Your task to perform on an android device: toggle improve location accuracy Image 0: 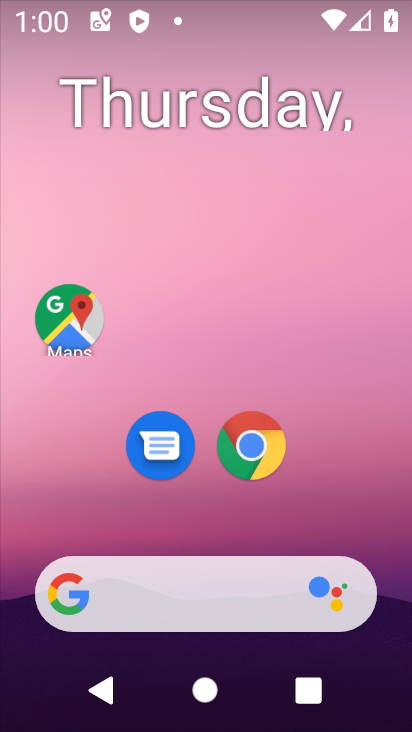
Step 0: drag from (171, 553) to (324, 4)
Your task to perform on an android device: toggle improve location accuracy Image 1: 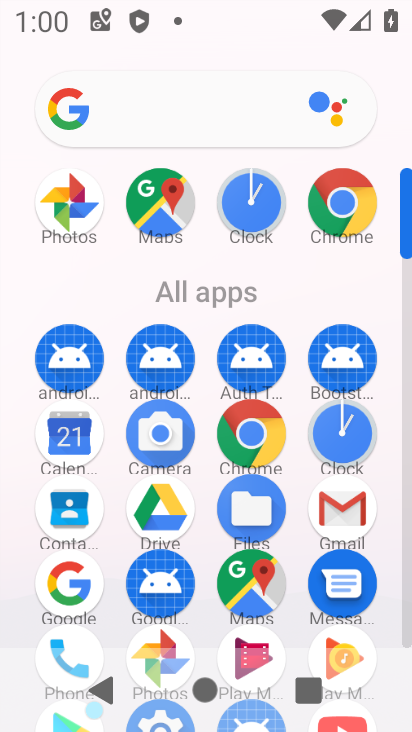
Step 1: drag from (180, 686) to (293, 239)
Your task to perform on an android device: toggle improve location accuracy Image 2: 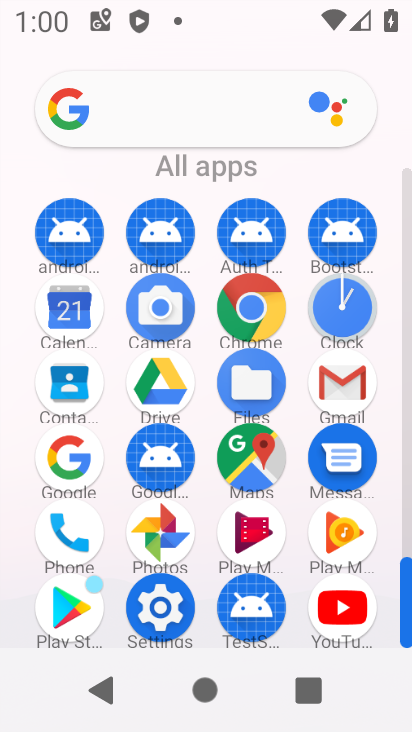
Step 2: click (162, 629)
Your task to perform on an android device: toggle improve location accuracy Image 3: 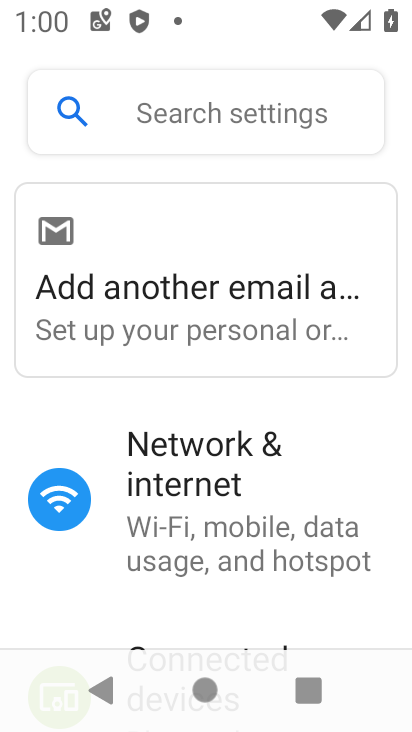
Step 3: drag from (206, 566) to (365, 30)
Your task to perform on an android device: toggle improve location accuracy Image 4: 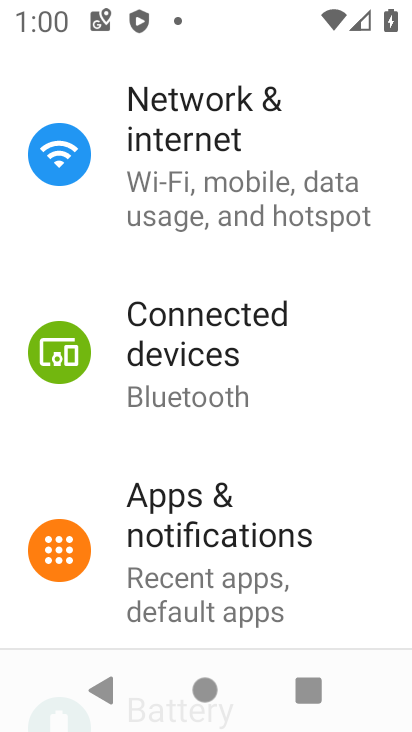
Step 4: drag from (247, 510) to (365, 100)
Your task to perform on an android device: toggle improve location accuracy Image 5: 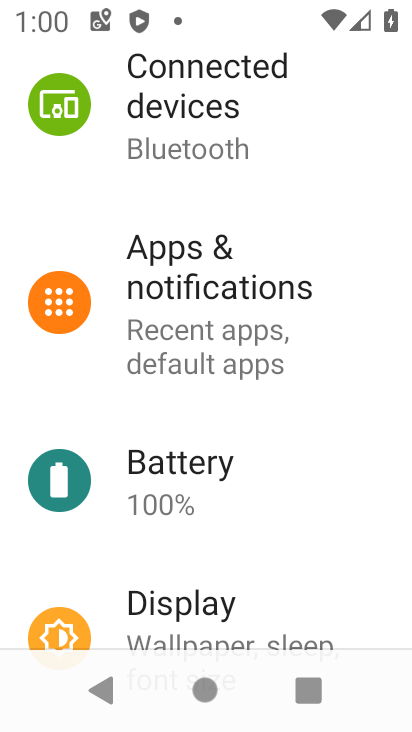
Step 5: drag from (207, 622) to (408, 135)
Your task to perform on an android device: toggle improve location accuracy Image 6: 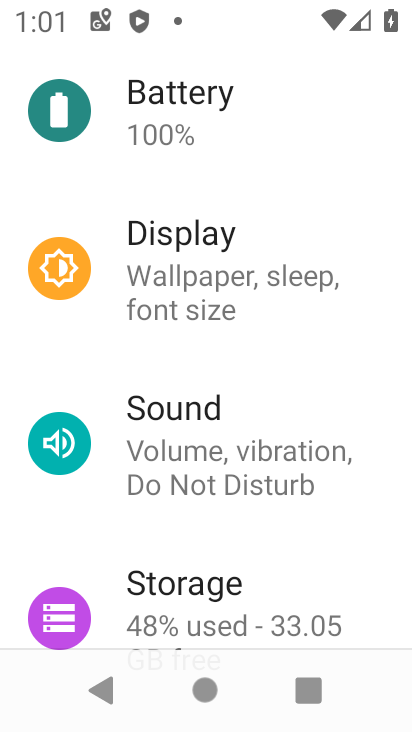
Step 6: drag from (198, 603) to (320, 116)
Your task to perform on an android device: toggle improve location accuracy Image 7: 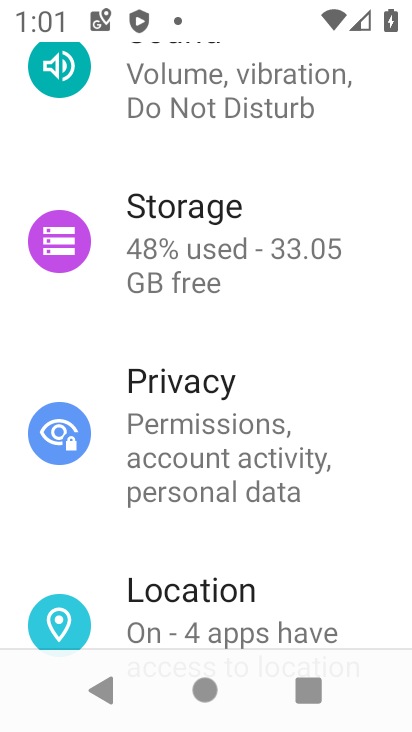
Step 7: click (197, 594)
Your task to perform on an android device: toggle improve location accuracy Image 8: 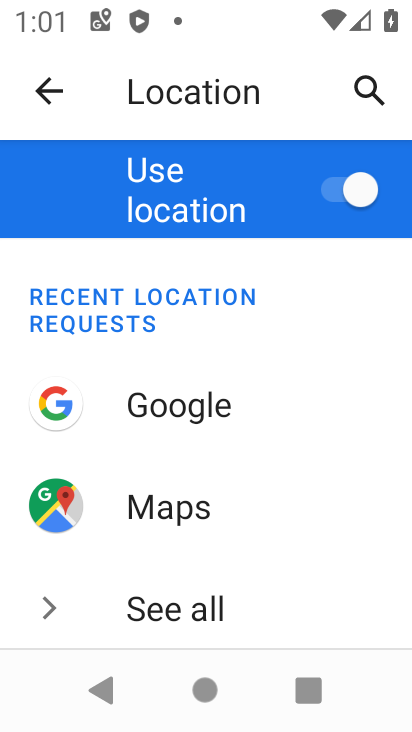
Step 8: drag from (189, 669) to (338, 236)
Your task to perform on an android device: toggle improve location accuracy Image 9: 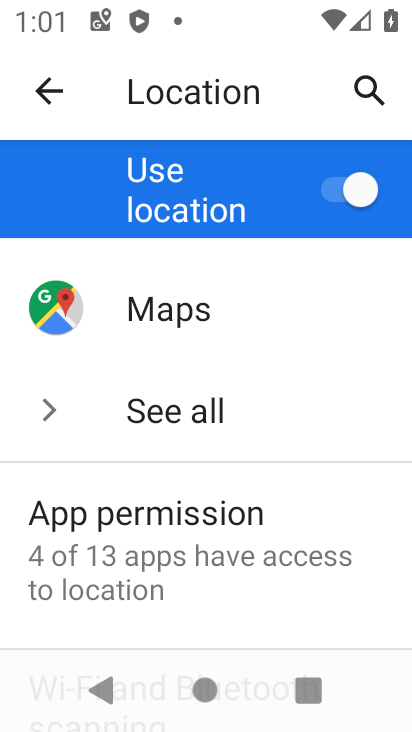
Step 9: drag from (177, 576) to (304, 208)
Your task to perform on an android device: toggle improve location accuracy Image 10: 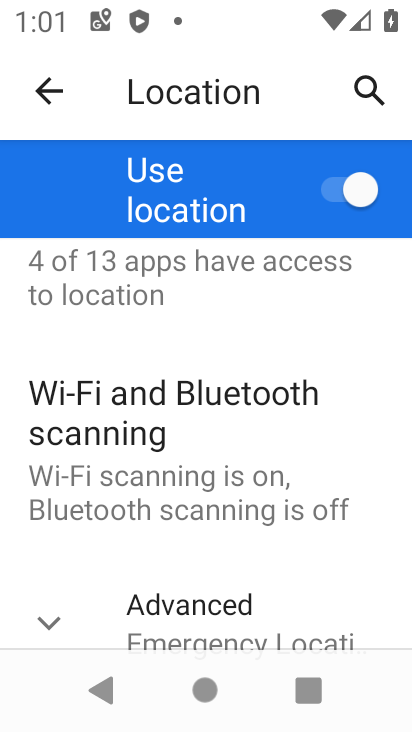
Step 10: click (204, 625)
Your task to perform on an android device: toggle improve location accuracy Image 11: 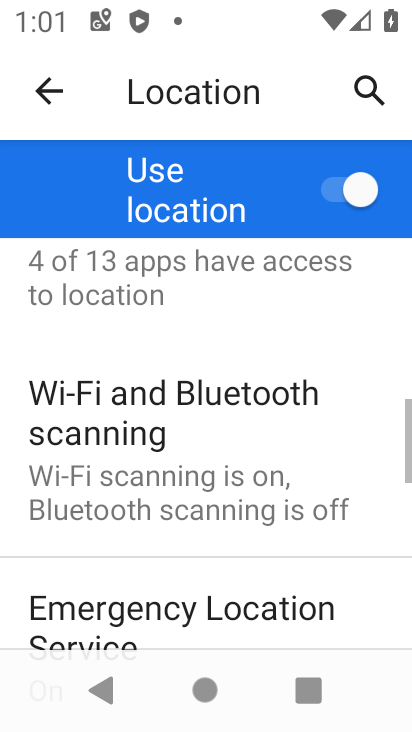
Step 11: drag from (213, 548) to (328, 201)
Your task to perform on an android device: toggle improve location accuracy Image 12: 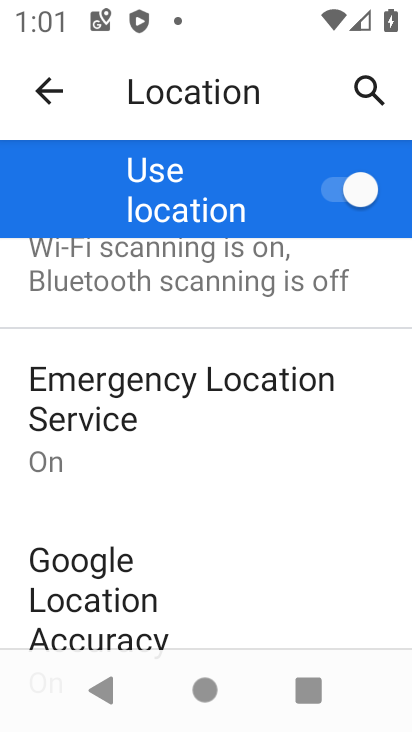
Step 12: drag from (222, 555) to (326, 281)
Your task to perform on an android device: toggle improve location accuracy Image 13: 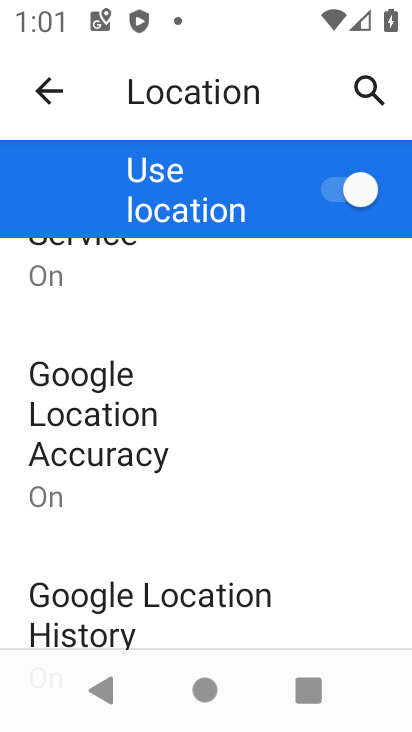
Step 13: drag from (247, 566) to (366, 245)
Your task to perform on an android device: toggle improve location accuracy Image 14: 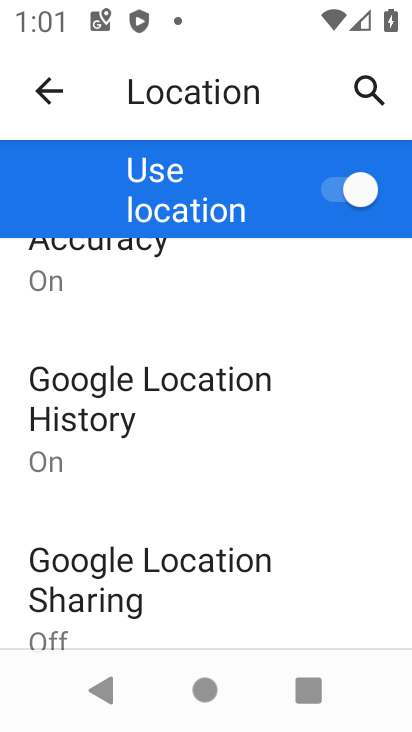
Step 14: click (201, 284)
Your task to perform on an android device: toggle improve location accuracy Image 15: 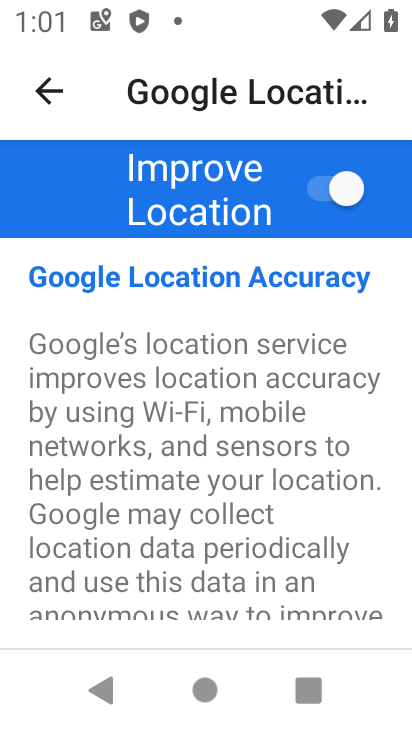
Step 15: click (316, 189)
Your task to perform on an android device: toggle improve location accuracy Image 16: 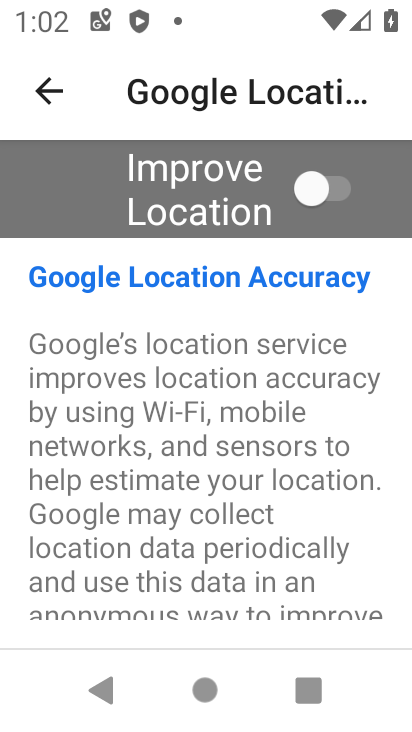
Step 16: task complete